Your task to perform on an android device: When is my next meeting? Image 0: 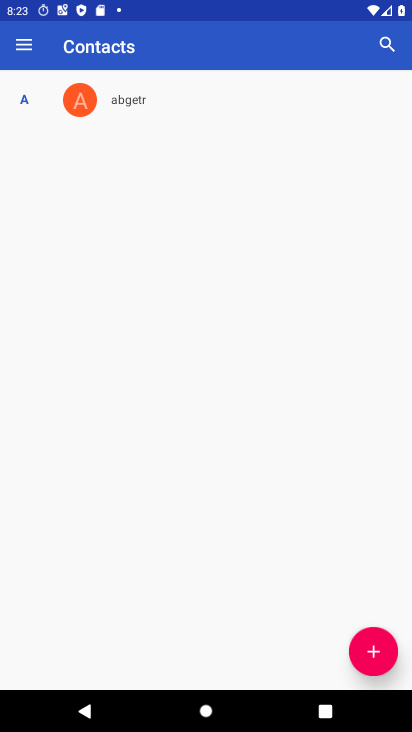
Step 0: press home button
Your task to perform on an android device: When is my next meeting? Image 1: 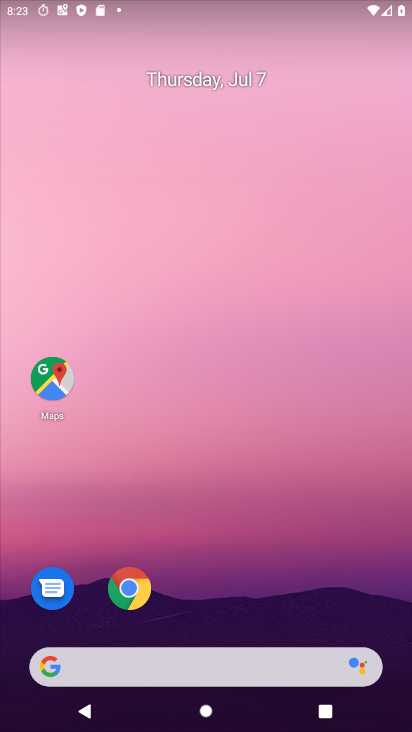
Step 1: click (138, 657)
Your task to perform on an android device: When is my next meeting? Image 2: 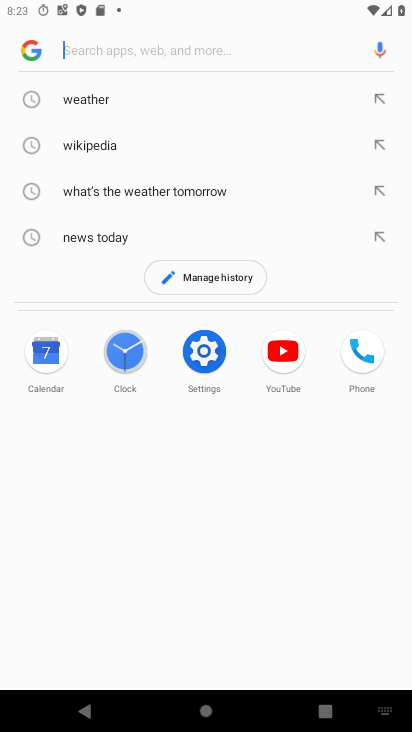
Step 2: press home button
Your task to perform on an android device: When is my next meeting? Image 3: 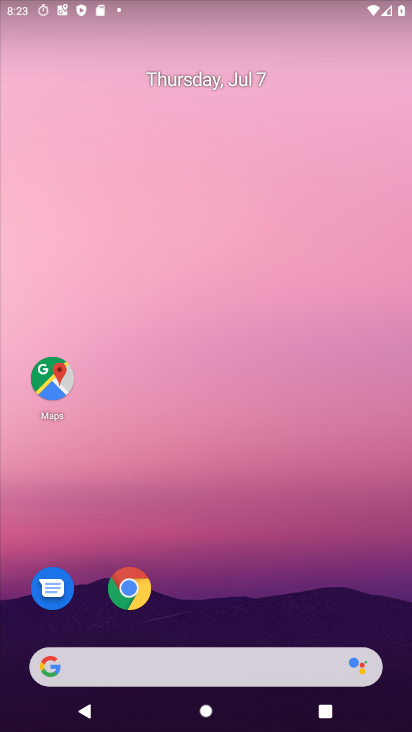
Step 3: drag from (191, 645) to (347, 118)
Your task to perform on an android device: When is my next meeting? Image 4: 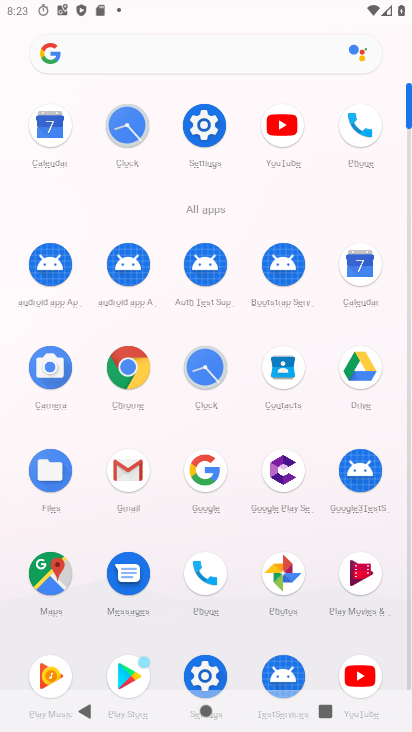
Step 4: click (362, 266)
Your task to perform on an android device: When is my next meeting? Image 5: 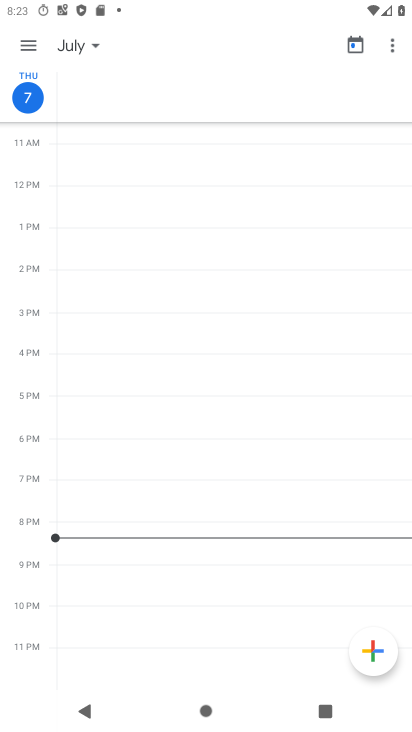
Step 5: click (70, 39)
Your task to perform on an android device: When is my next meeting? Image 6: 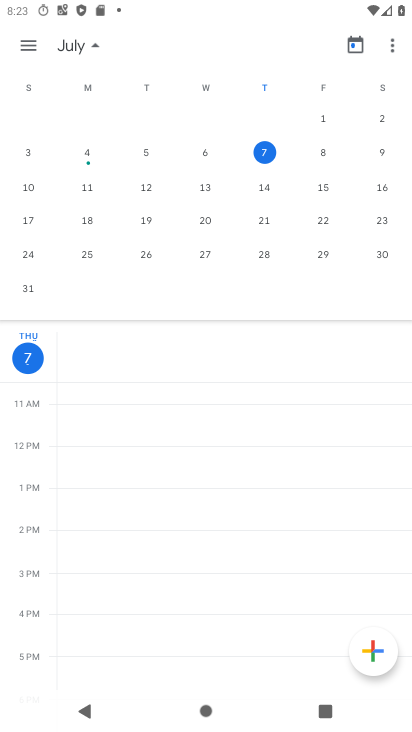
Step 6: click (26, 42)
Your task to perform on an android device: When is my next meeting? Image 7: 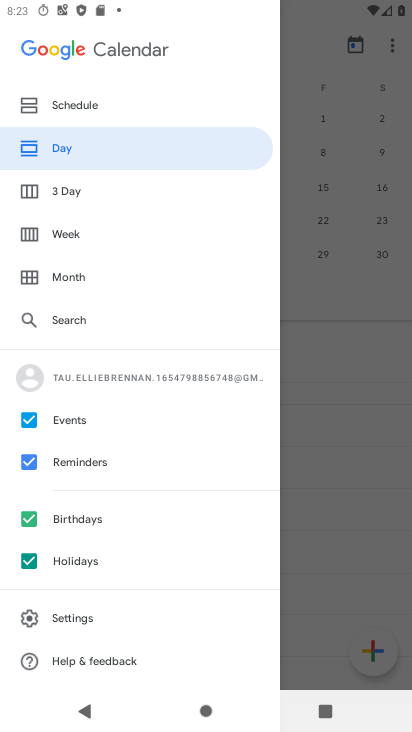
Step 7: click (66, 103)
Your task to perform on an android device: When is my next meeting? Image 8: 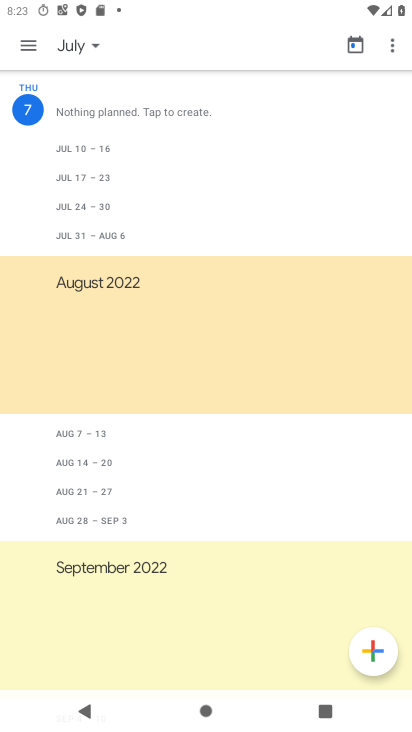
Step 8: task complete